Your task to perform on an android device: create a new album in the google photos Image 0: 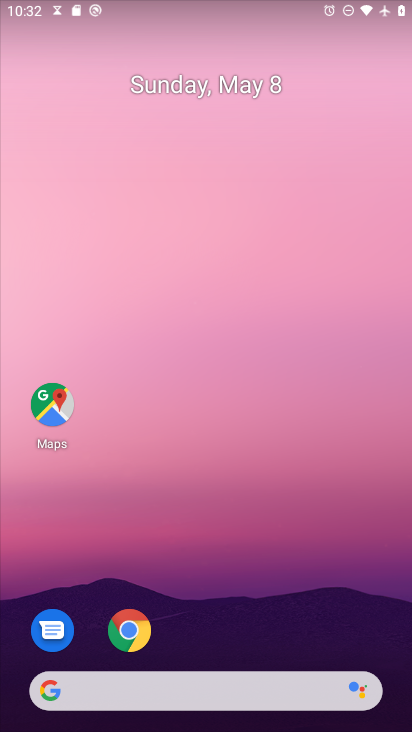
Step 0: drag from (236, 698) to (330, 228)
Your task to perform on an android device: create a new album in the google photos Image 1: 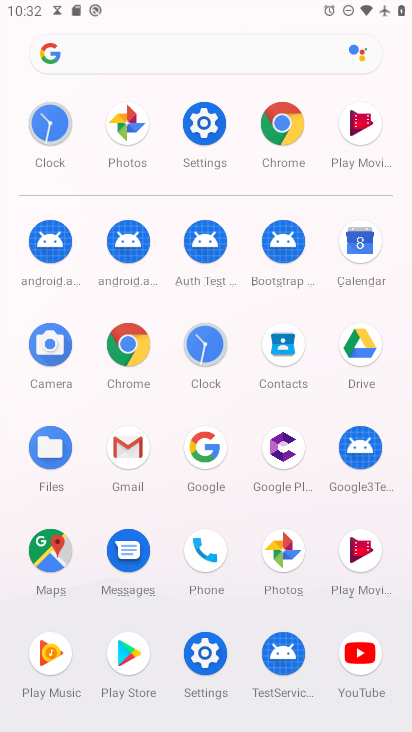
Step 1: click (279, 551)
Your task to perform on an android device: create a new album in the google photos Image 2: 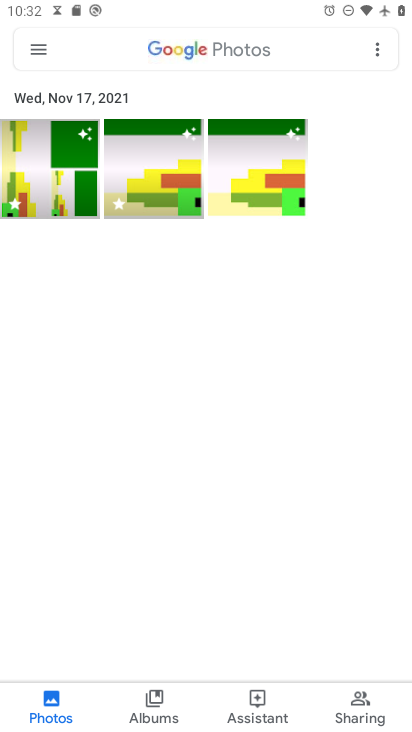
Step 2: click (161, 707)
Your task to perform on an android device: create a new album in the google photos Image 3: 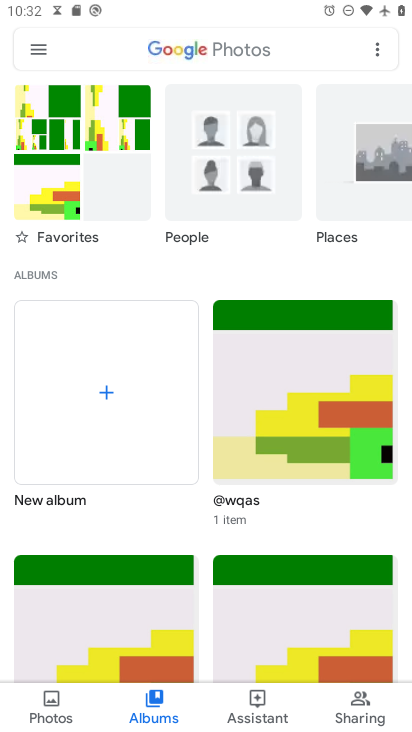
Step 3: click (102, 389)
Your task to perform on an android device: create a new album in the google photos Image 4: 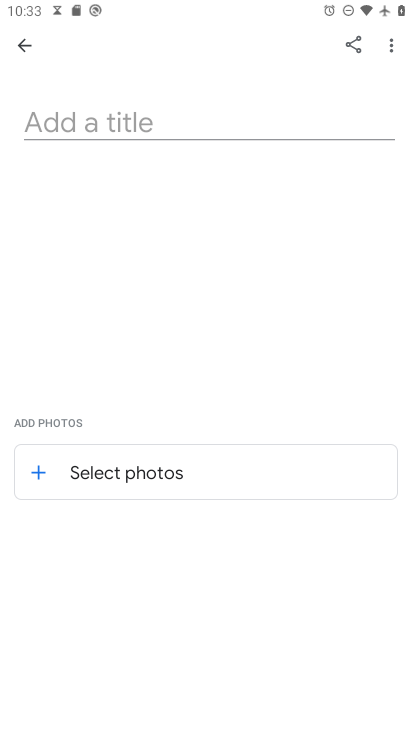
Step 4: click (162, 474)
Your task to perform on an android device: create a new album in the google photos Image 5: 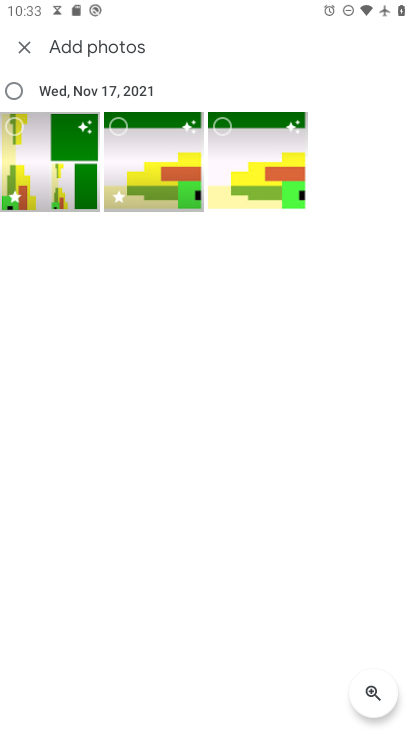
Step 5: click (22, 122)
Your task to perform on an android device: create a new album in the google photos Image 6: 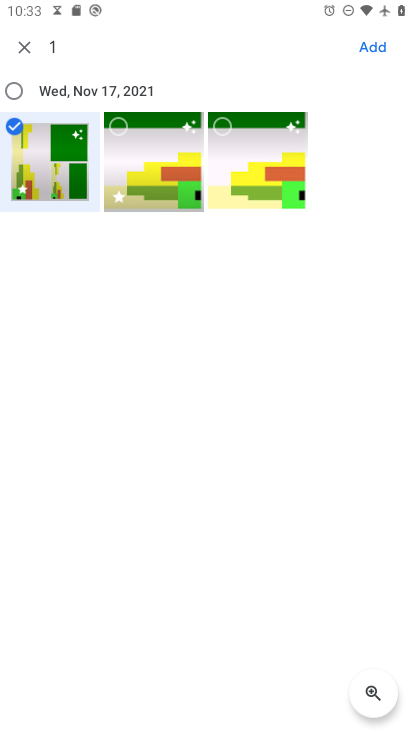
Step 6: click (151, 114)
Your task to perform on an android device: create a new album in the google photos Image 7: 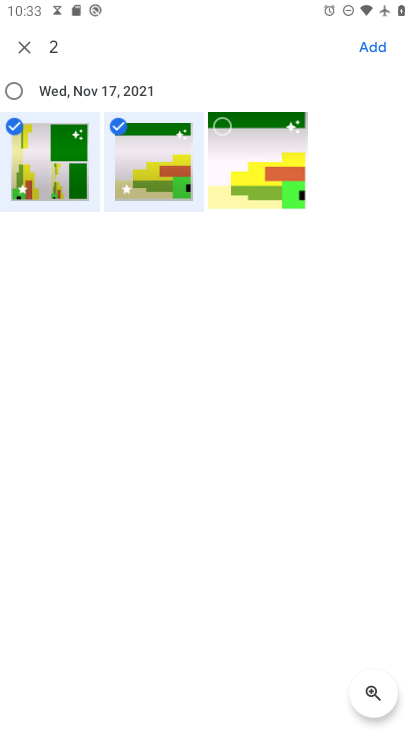
Step 7: click (241, 129)
Your task to perform on an android device: create a new album in the google photos Image 8: 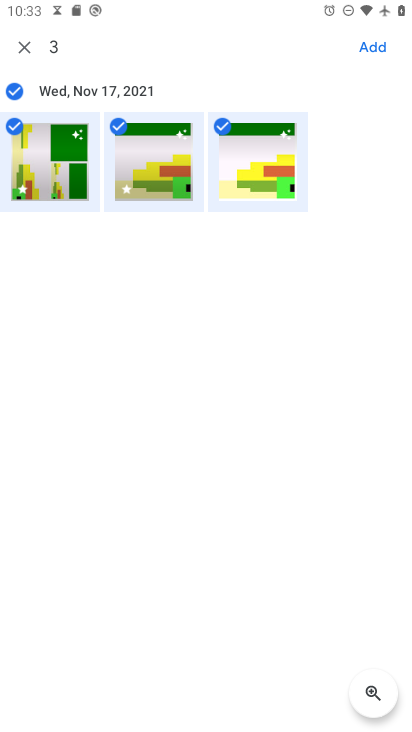
Step 8: click (363, 49)
Your task to perform on an android device: create a new album in the google photos Image 9: 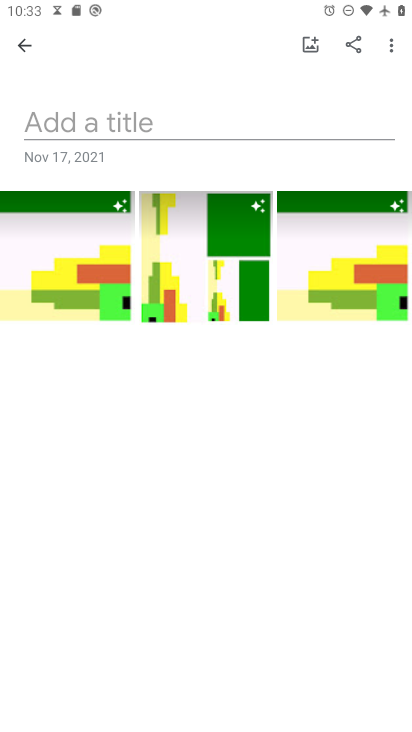
Step 9: task complete